Your task to perform on an android device: snooze an email in the gmail app Image 0: 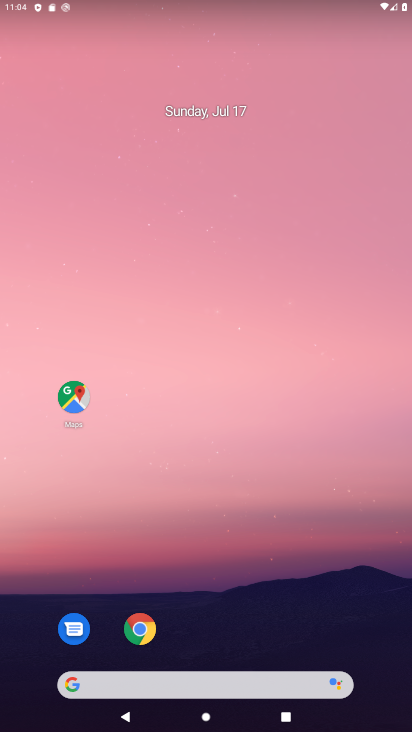
Step 0: drag from (299, 427) to (216, 72)
Your task to perform on an android device: snooze an email in the gmail app Image 1: 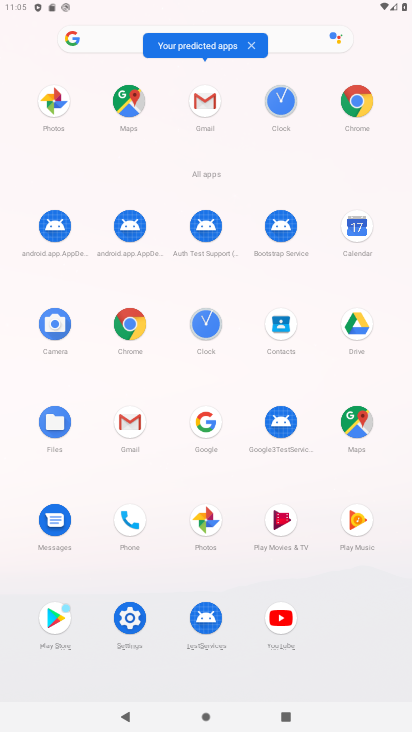
Step 1: click (132, 415)
Your task to perform on an android device: snooze an email in the gmail app Image 2: 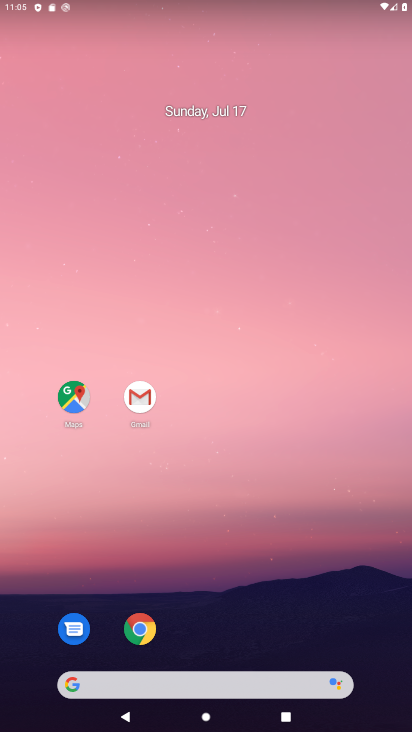
Step 2: click (137, 395)
Your task to perform on an android device: snooze an email in the gmail app Image 3: 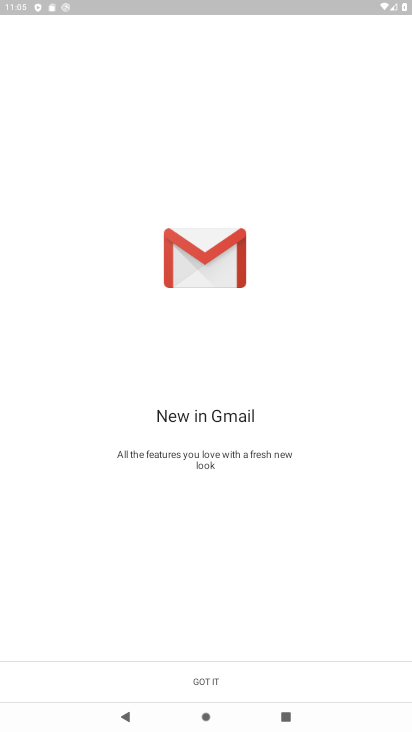
Step 3: click (211, 681)
Your task to perform on an android device: snooze an email in the gmail app Image 4: 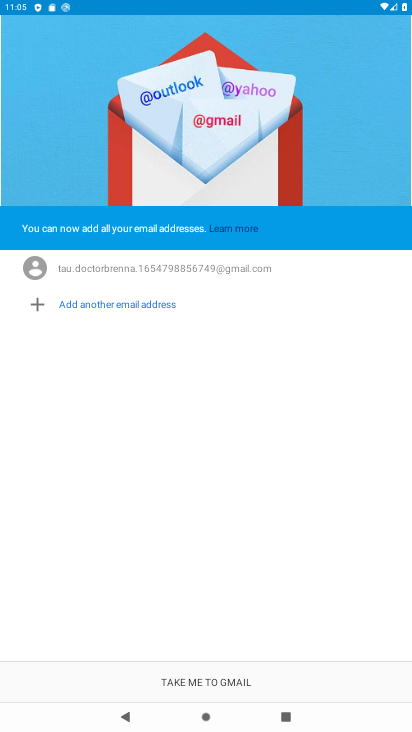
Step 4: click (213, 679)
Your task to perform on an android device: snooze an email in the gmail app Image 5: 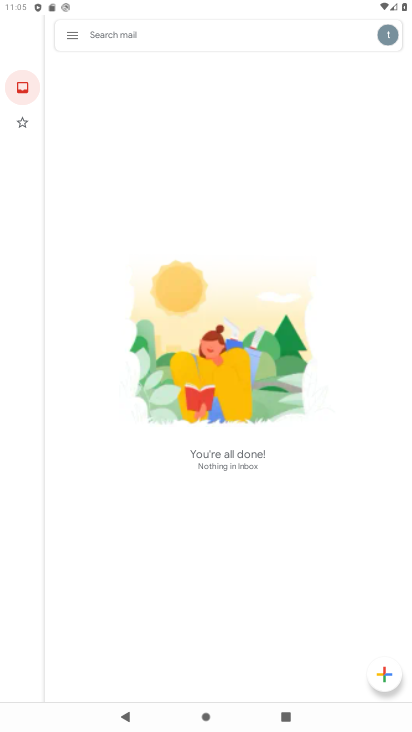
Step 5: click (63, 37)
Your task to perform on an android device: snooze an email in the gmail app Image 6: 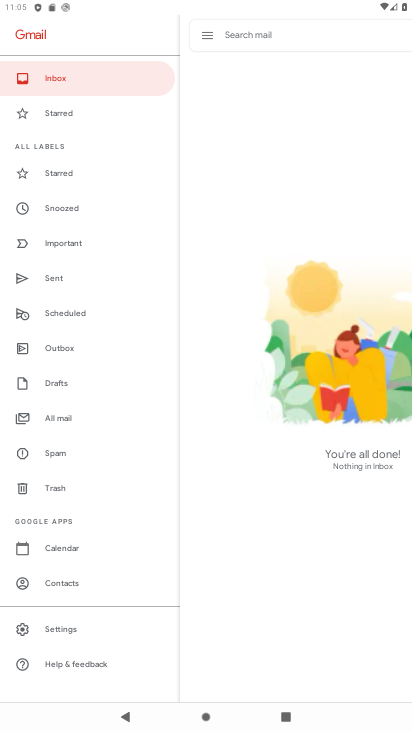
Step 6: task complete